Your task to perform on an android device: turn on showing notifications on the lock screen Image 0: 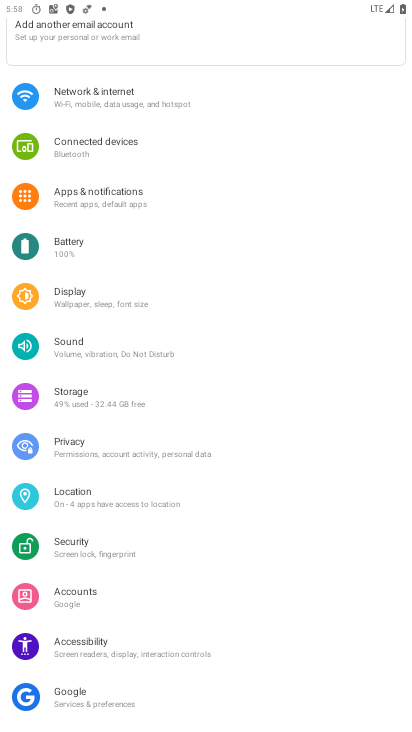
Step 0: click (116, 199)
Your task to perform on an android device: turn on showing notifications on the lock screen Image 1: 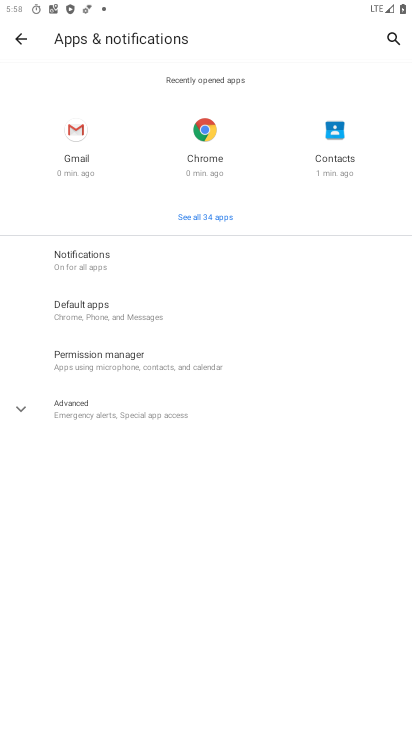
Step 1: click (71, 247)
Your task to perform on an android device: turn on showing notifications on the lock screen Image 2: 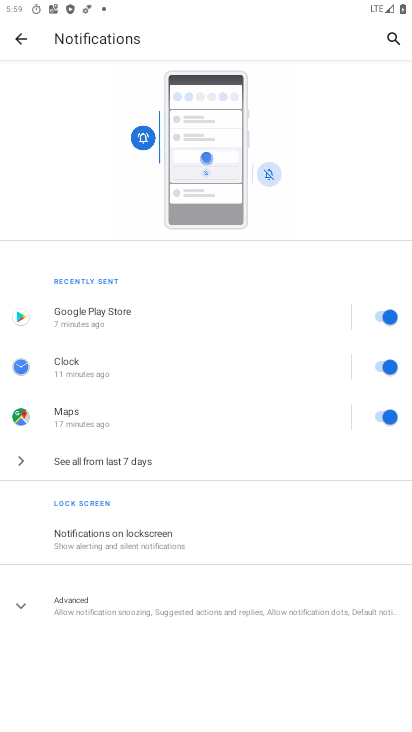
Step 2: click (135, 539)
Your task to perform on an android device: turn on showing notifications on the lock screen Image 3: 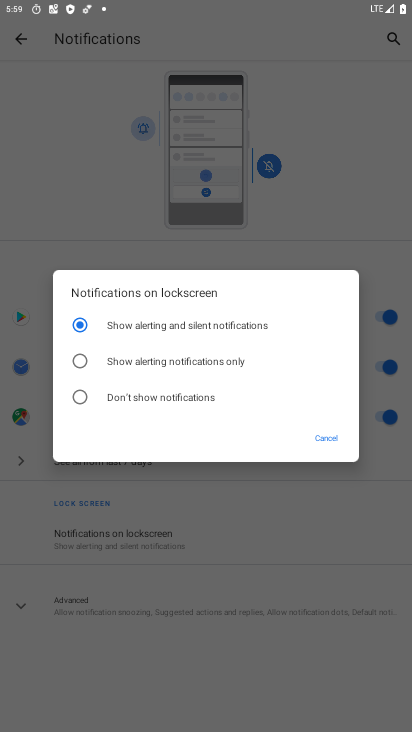
Step 3: task complete